Your task to perform on an android device: Open location settings Image 0: 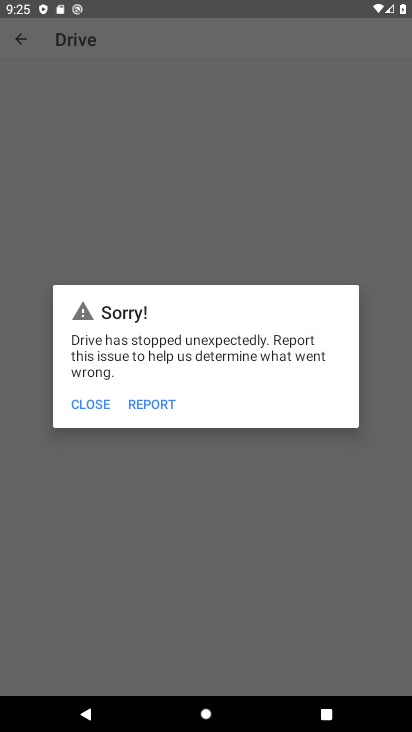
Step 0: press home button
Your task to perform on an android device: Open location settings Image 1: 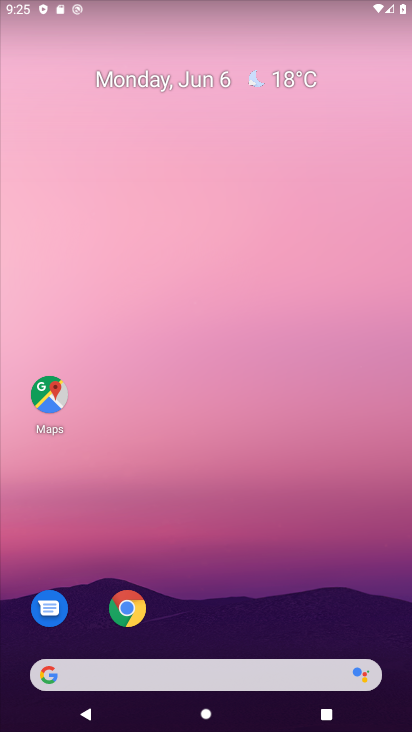
Step 1: drag from (289, 557) to (208, 68)
Your task to perform on an android device: Open location settings Image 2: 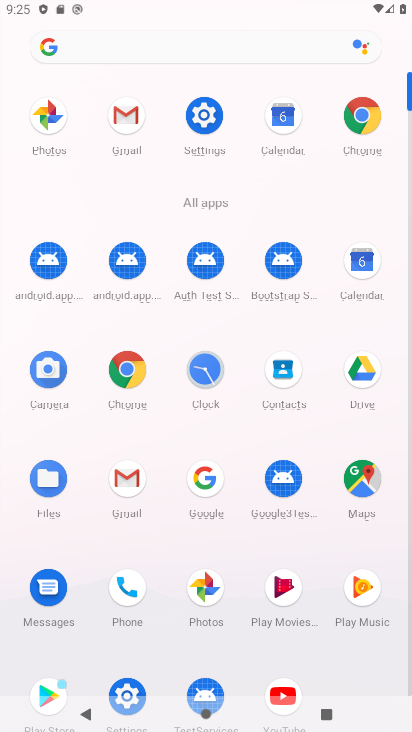
Step 2: click (203, 115)
Your task to perform on an android device: Open location settings Image 3: 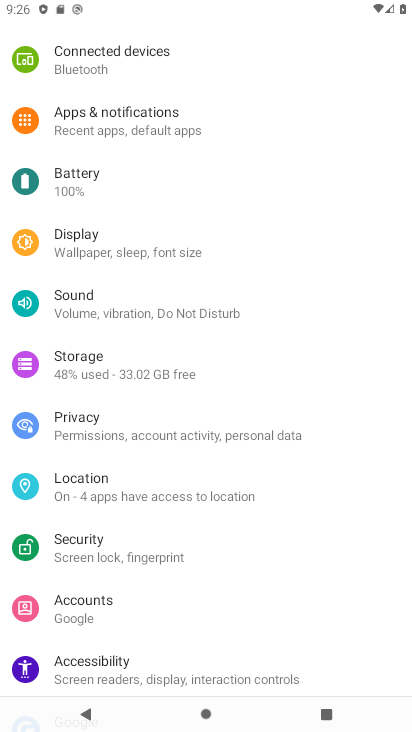
Step 3: click (103, 487)
Your task to perform on an android device: Open location settings Image 4: 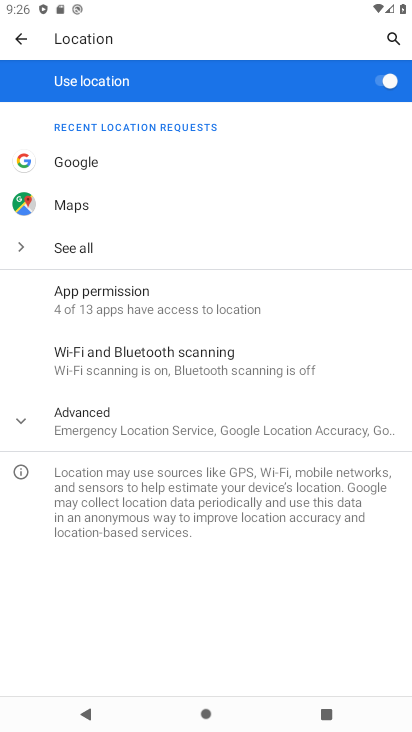
Step 4: task complete